Your task to perform on an android device: toggle pop-ups in chrome Image 0: 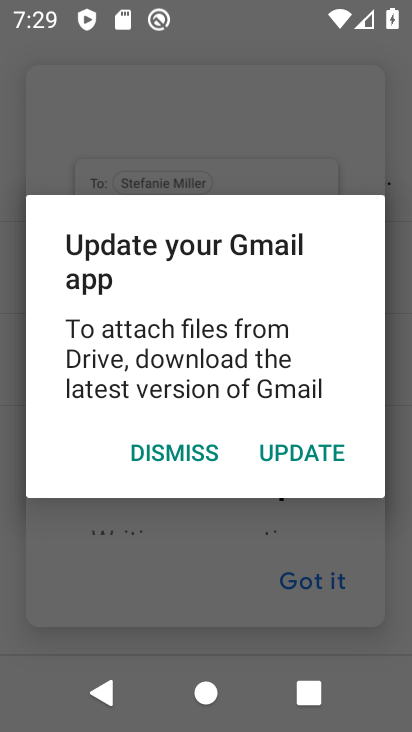
Step 0: press home button
Your task to perform on an android device: toggle pop-ups in chrome Image 1: 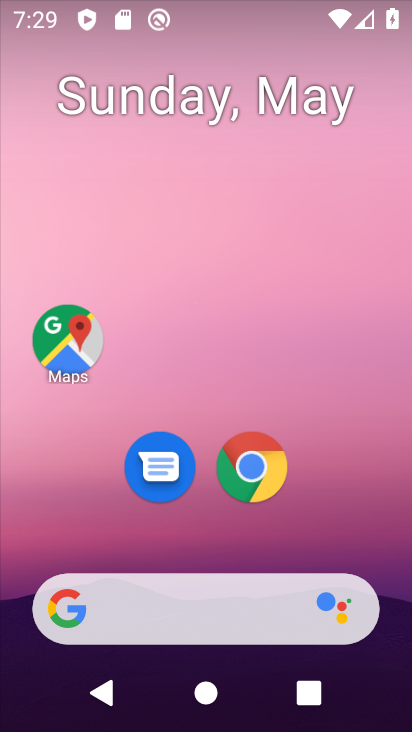
Step 1: click (238, 470)
Your task to perform on an android device: toggle pop-ups in chrome Image 2: 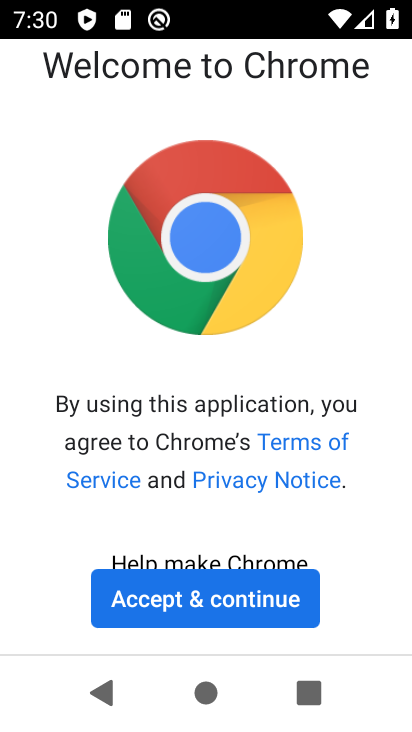
Step 2: click (179, 610)
Your task to perform on an android device: toggle pop-ups in chrome Image 3: 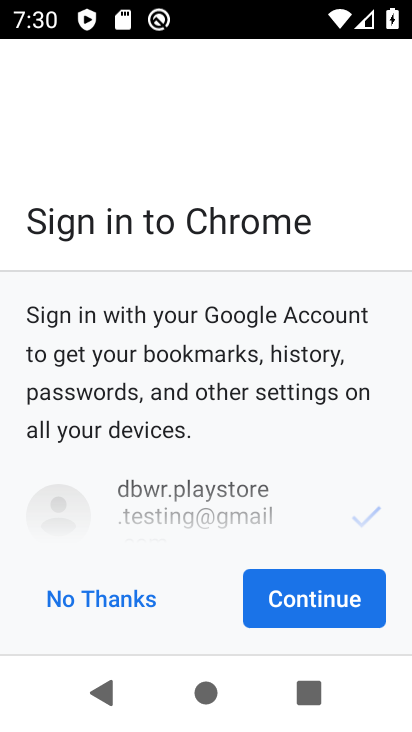
Step 3: click (125, 604)
Your task to perform on an android device: toggle pop-ups in chrome Image 4: 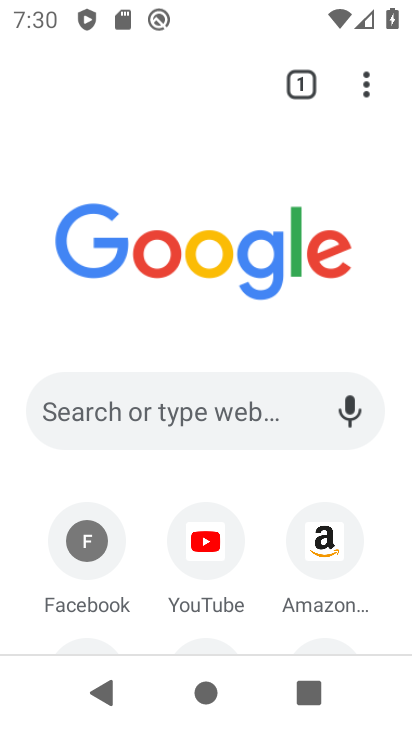
Step 4: click (370, 84)
Your task to perform on an android device: toggle pop-ups in chrome Image 5: 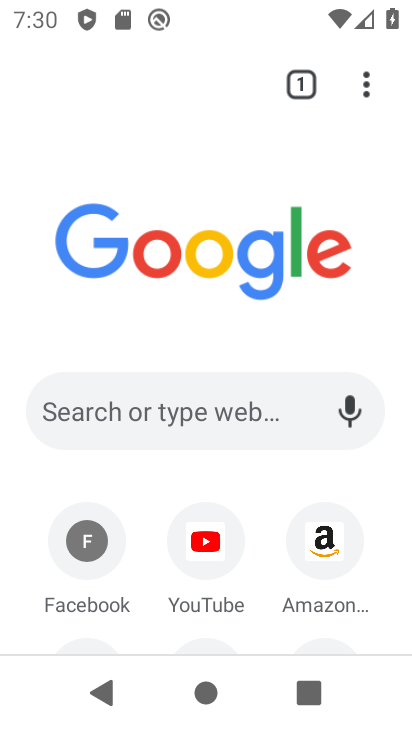
Step 5: click (370, 84)
Your task to perform on an android device: toggle pop-ups in chrome Image 6: 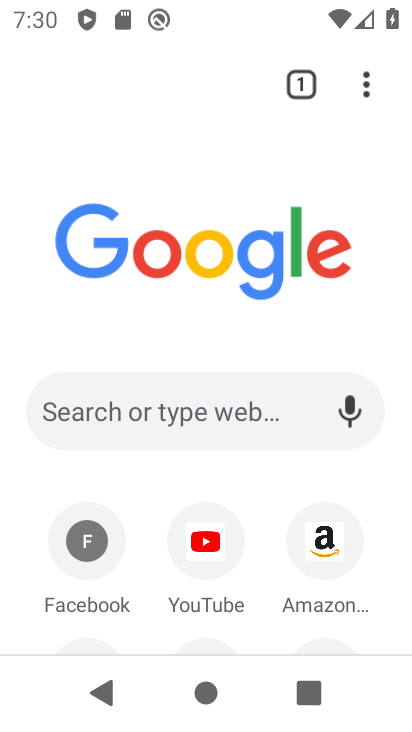
Step 6: click (366, 85)
Your task to perform on an android device: toggle pop-ups in chrome Image 7: 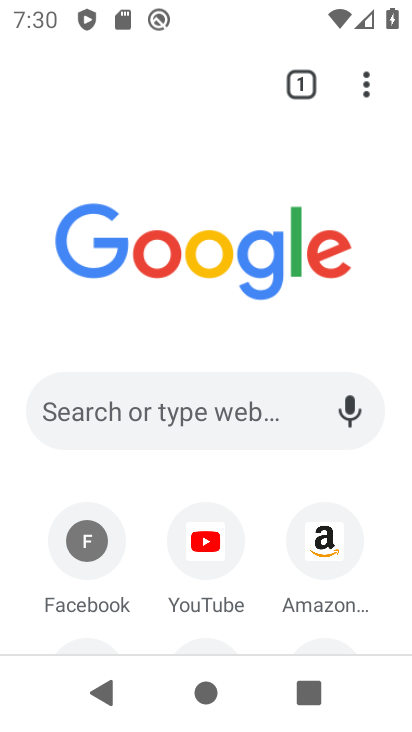
Step 7: click (359, 88)
Your task to perform on an android device: toggle pop-ups in chrome Image 8: 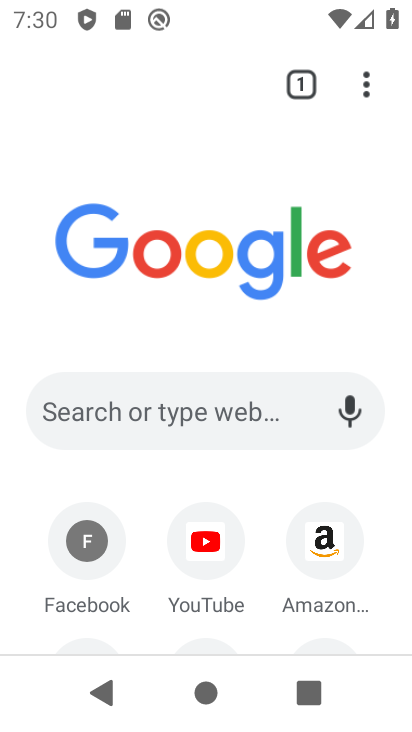
Step 8: click (379, 82)
Your task to perform on an android device: toggle pop-ups in chrome Image 9: 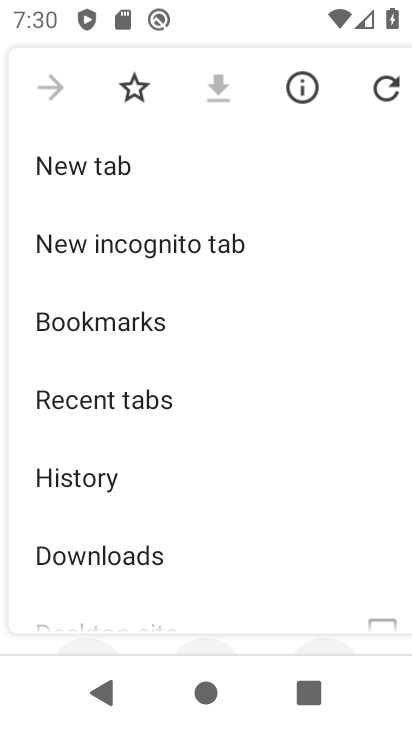
Step 9: drag from (3, 530) to (266, 185)
Your task to perform on an android device: toggle pop-ups in chrome Image 10: 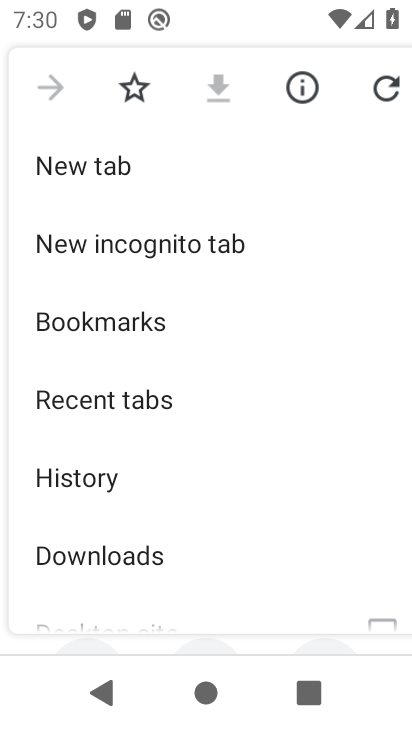
Step 10: drag from (145, 517) to (349, 86)
Your task to perform on an android device: toggle pop-ups in chrome Image 11: 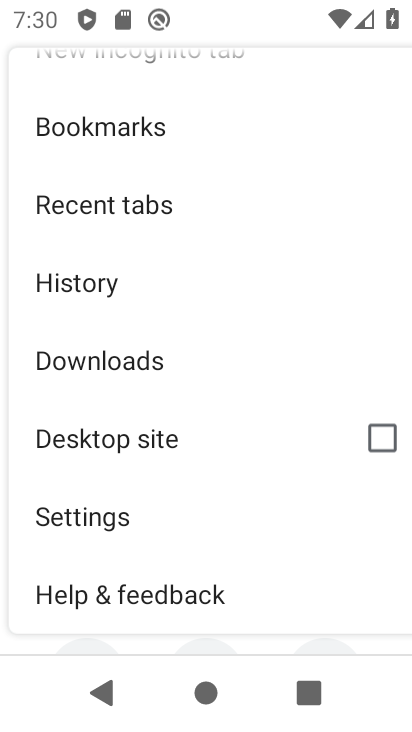
Step 11: click (129, 522)
Your task to perform on an android device: toggle pop-ups in chrome Image 12: 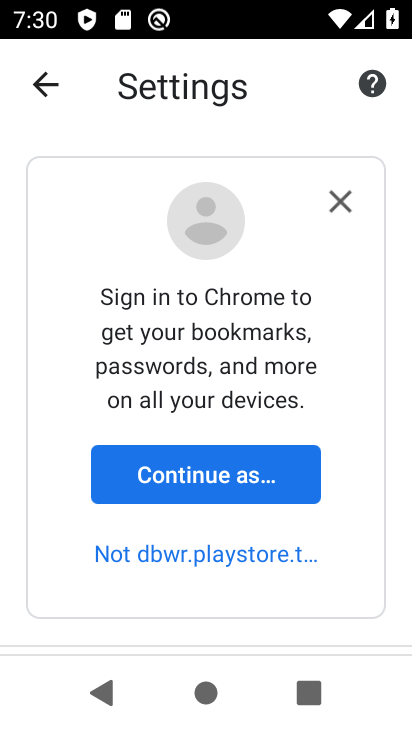
Step 12: click (348, 202)
Your task to perform on an android device: toggle pop-ups in chrome Image 13: 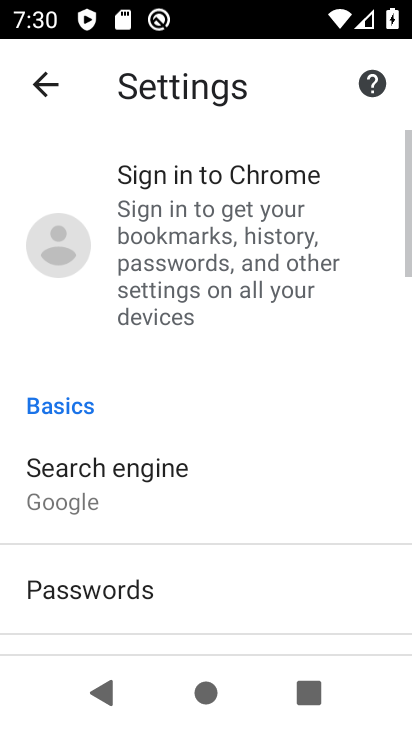
Step 13: drag from (16, 540) to (215, 111)
Your task to perform on an android device: toggle pop-ups in chrome Image 14: 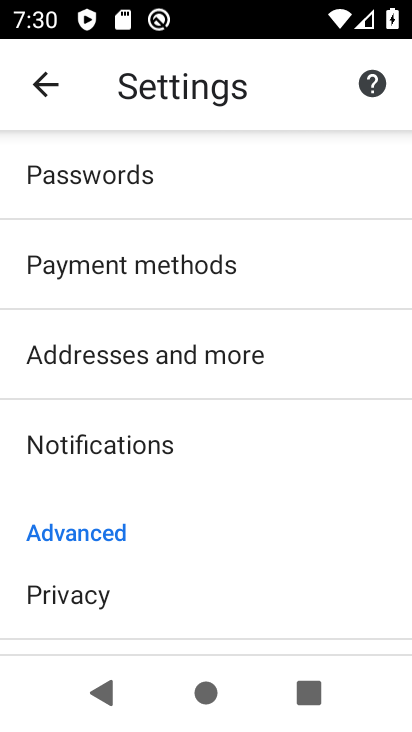
Step 14: drag from (21, 546) to (186, 260)
Your task to perform on an android device: toggle pop-ups in chrome Image 15: 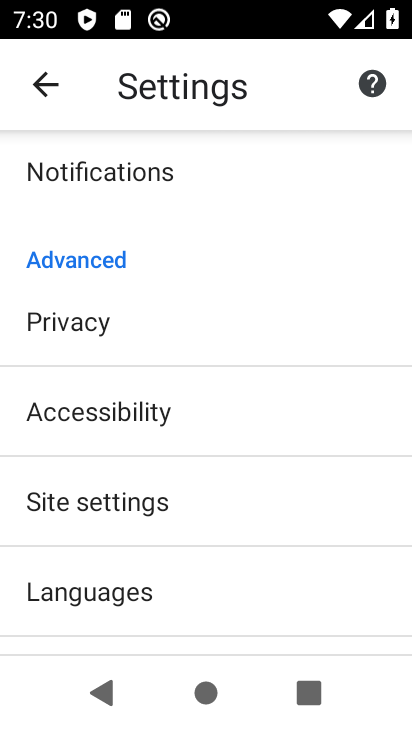
Step 15: click (64, 498)
Your task to perform on an android device: toggle pop-ups in chrome Image 16: 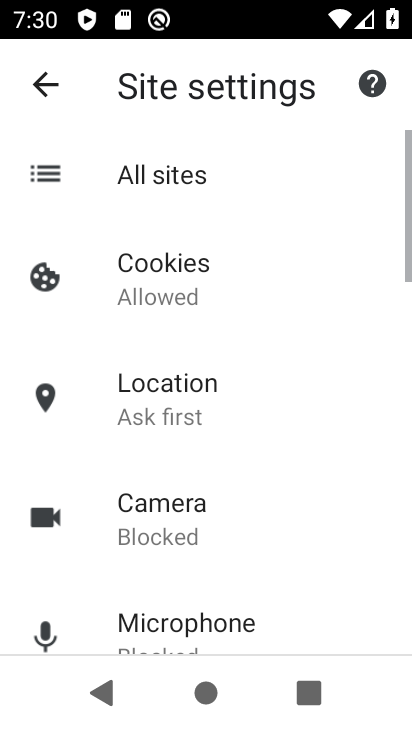
Step 16: drag from (32, 439) to (183, 164)
Your task to perform on an android device: toggle pop-ups in chrome Image 17: 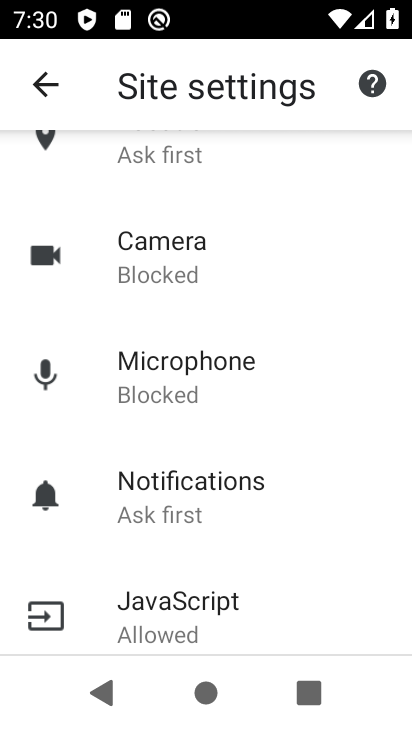
Step 17: drag from (66, 613) to (231, 209)
Your task to perform on an android device: toggle pop-ups in chrome Image 18: 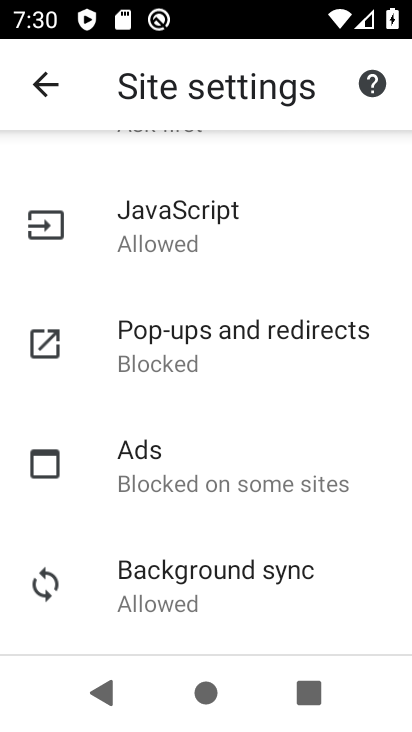
Step 18: click (172, 331)
Your task to perform on an android device: toggle pop-ups in chrome Image 19: 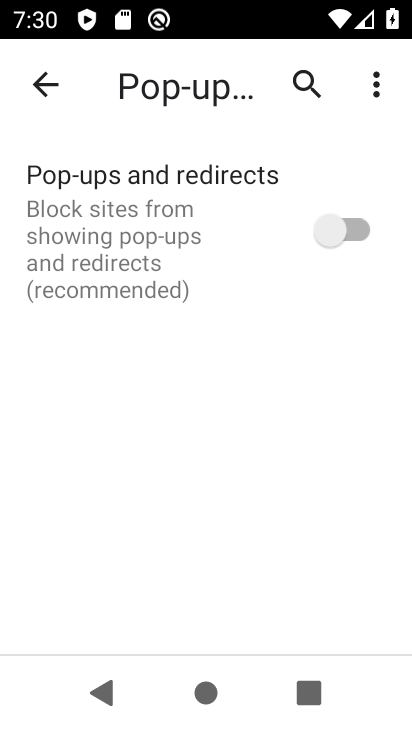
Step 19: click (338, 235)
Your task to perform on an android device: toggle pop-ups in chrome Image 20: 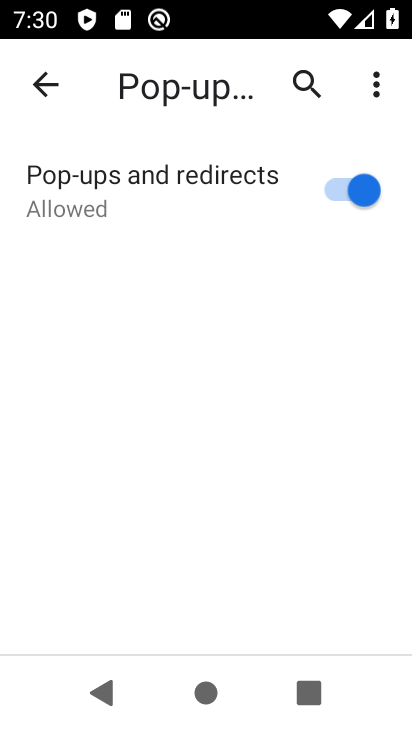
Step 20: task complete